Your task to perform on an android device: turn on improve location accuracy Image 0: 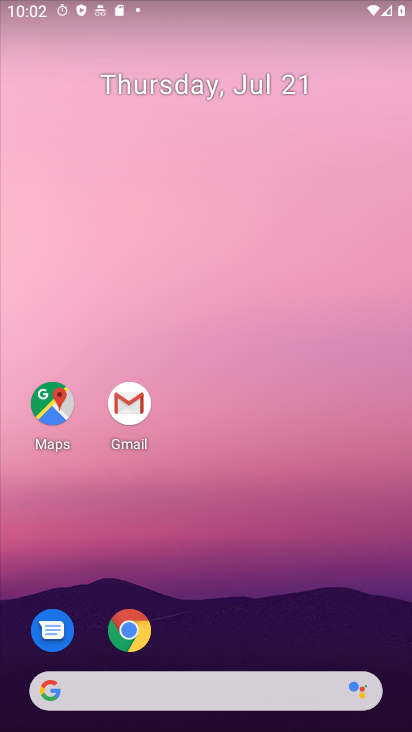
Step 0: drag from (298, 665) to (245, 176)
Your task to perform on an android device: turn on improve location accuracy Image 1: 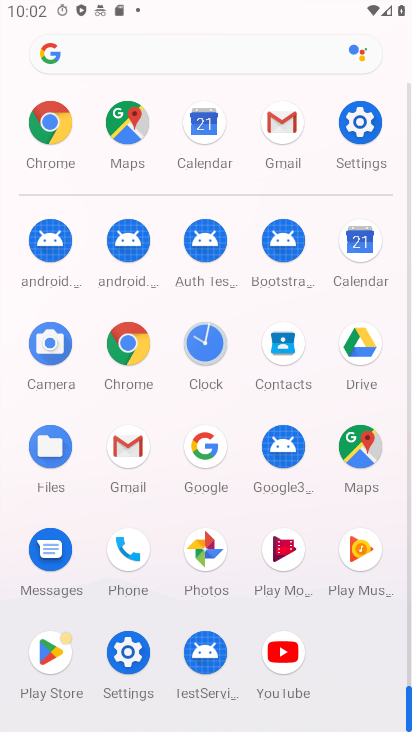
Step 1: click (357, 127)
Your task to perform on an android device: turn on improve location accuracy Image 2: 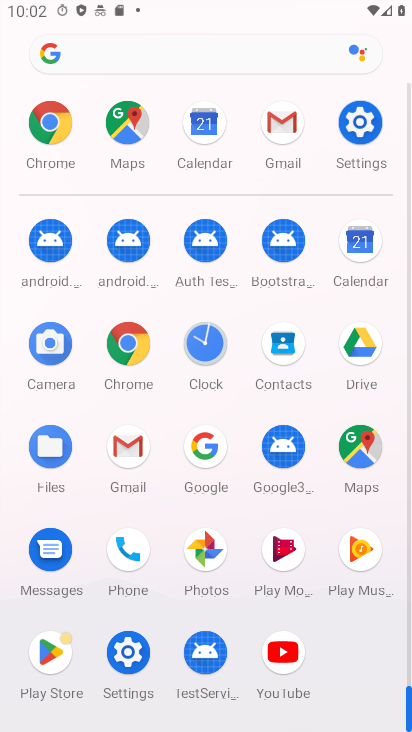
Step 2: click (358, 127)
Your task to perform on an android device: turn on improve location accuracy Image 3: 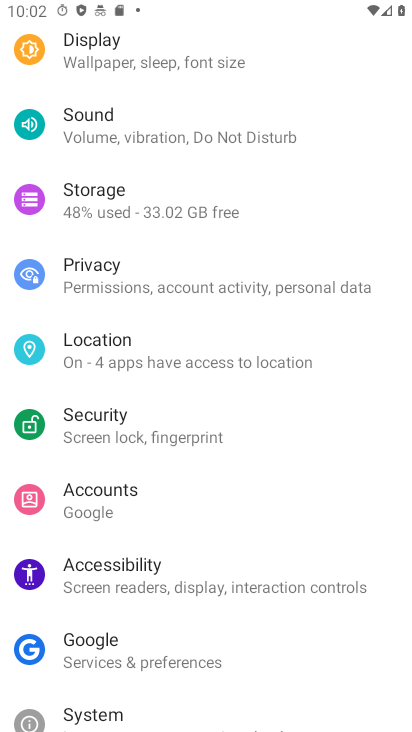
Step 3: click (137, 324)
Your task to perform on an android device: turn on improve location accuracy Image 4: 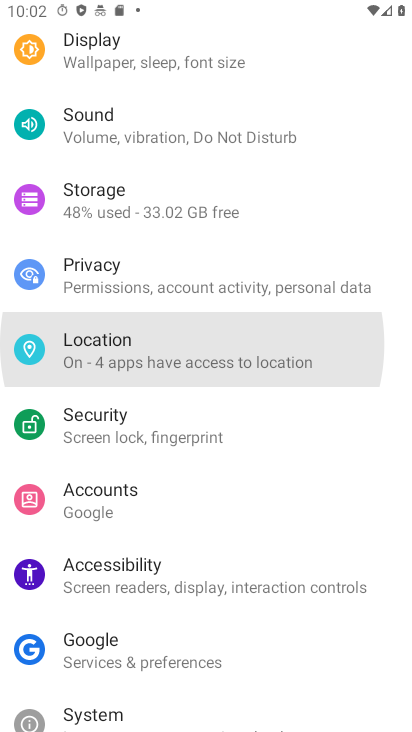
Step 4: click (137, 324)
Your task to perform on an android device: turn on improve location accuracy Image 5: 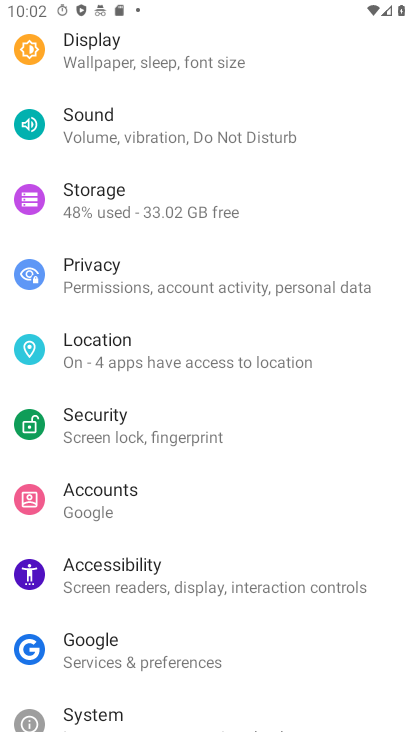
Step 5: click (140, 323)
Your task to perform on an android device: turn on improve location accuracy Image 6: 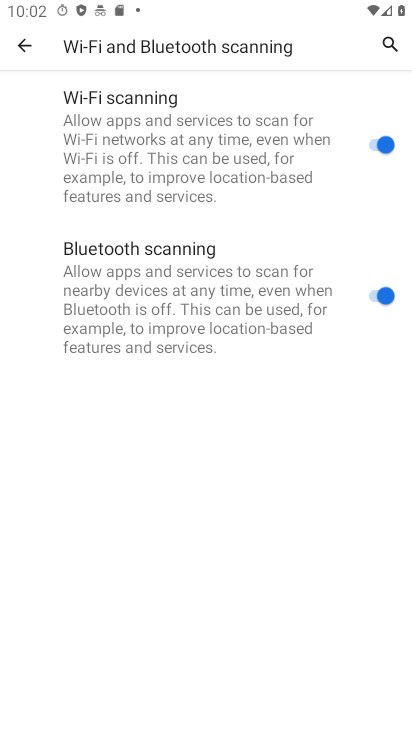
Step 6: click (31, 51)
Your task to perform on an android device: turn on improve location accuracy Image 7: 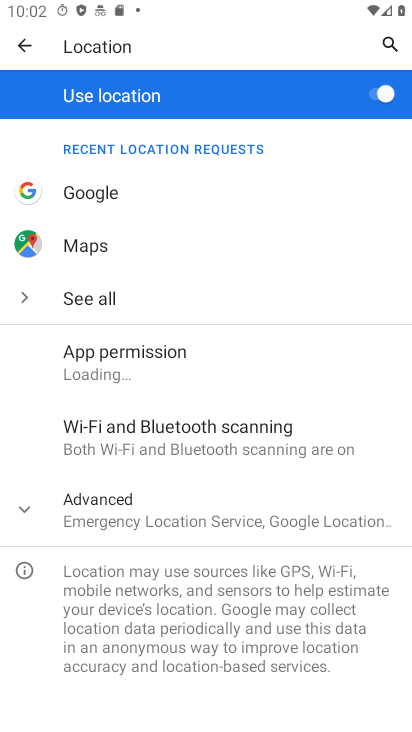
Step 7: click (128, 508)
Your task to perform on an android device: turn on improve location accuracy Image 8: 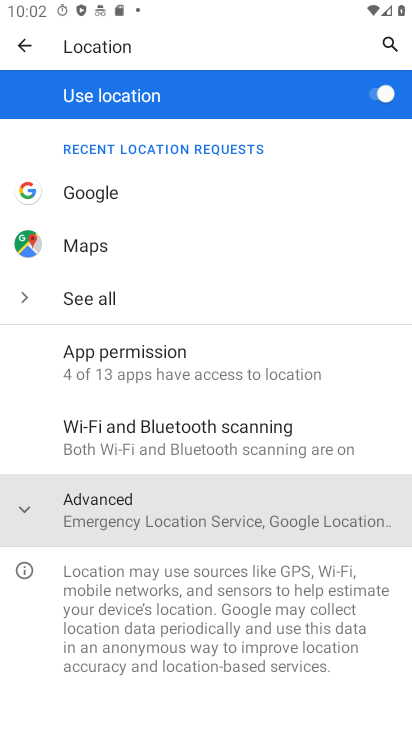
Step 8: click (126, 510)
Your task to perform on an android device: turn on improve location accuracy Image 9: 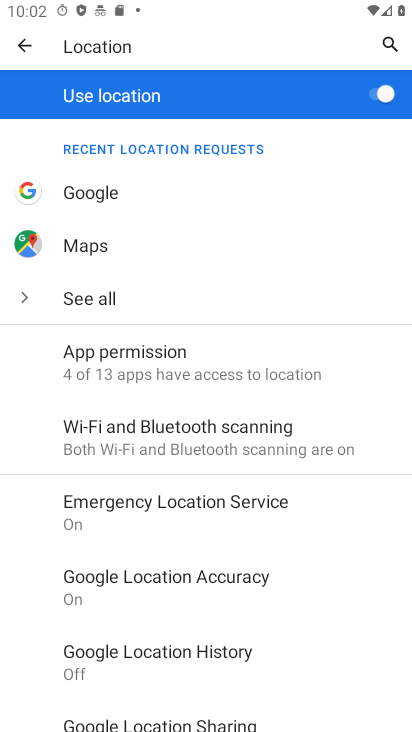
Step 9: click (222, 580)
Your task to perform on an android device: turn on improve location accuracy Image 10: 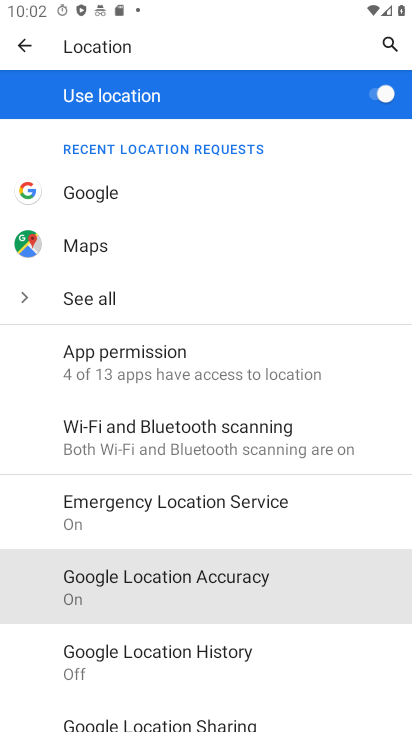
Step 10: click (222, 580)
Your task to perform on an android device: turn on improve location accuracy Image 11: 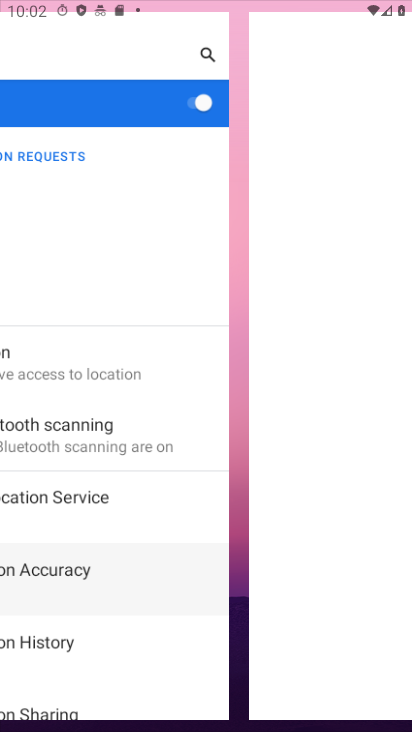
Step 11: click (228, 576)
Your task to perform on an android device: turn on improve location accuracy Image 12: 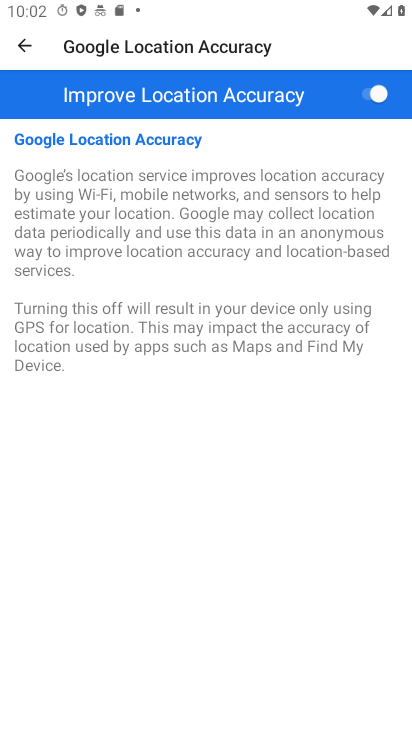
Step 12: task complete